Your task to perform on an android device: turn off location history Image 0: 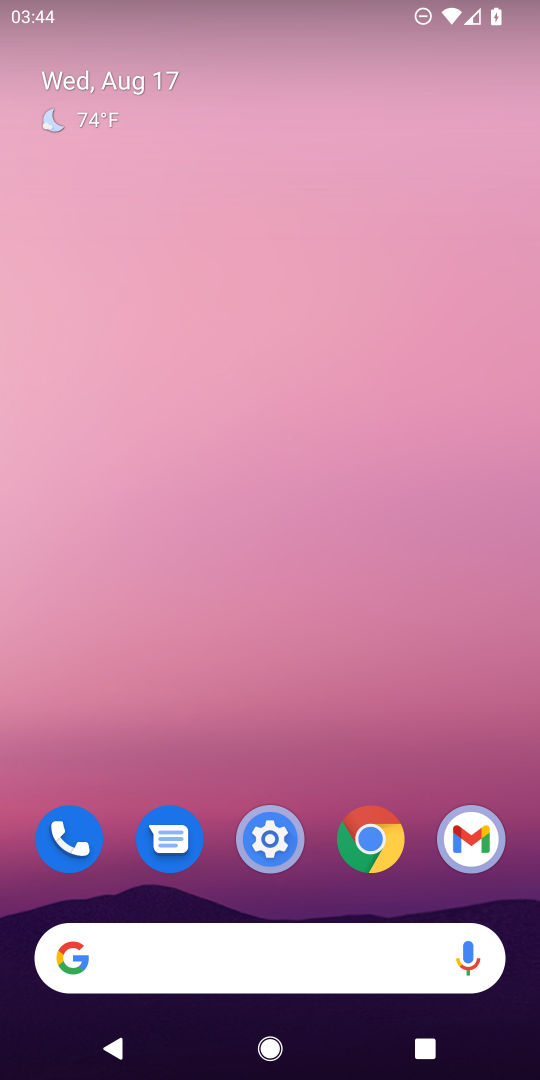
Step 0: drag from (320, 890) to (229, 44)
Your task to perform on an android device: turn off location history Image 1: 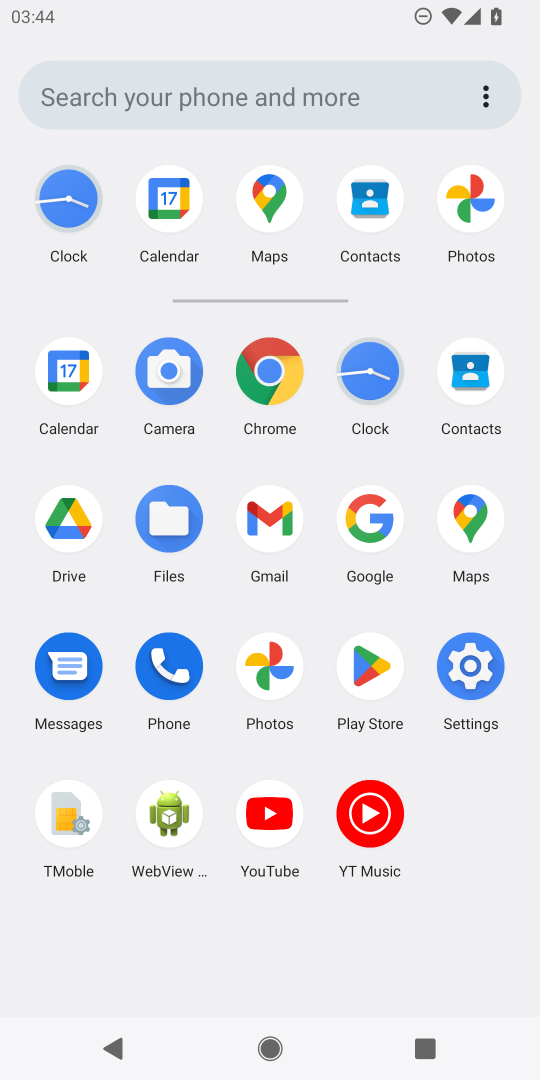
Step 1: click (460, 673)
Your task to perform on an android device: turn off location history Image 2: 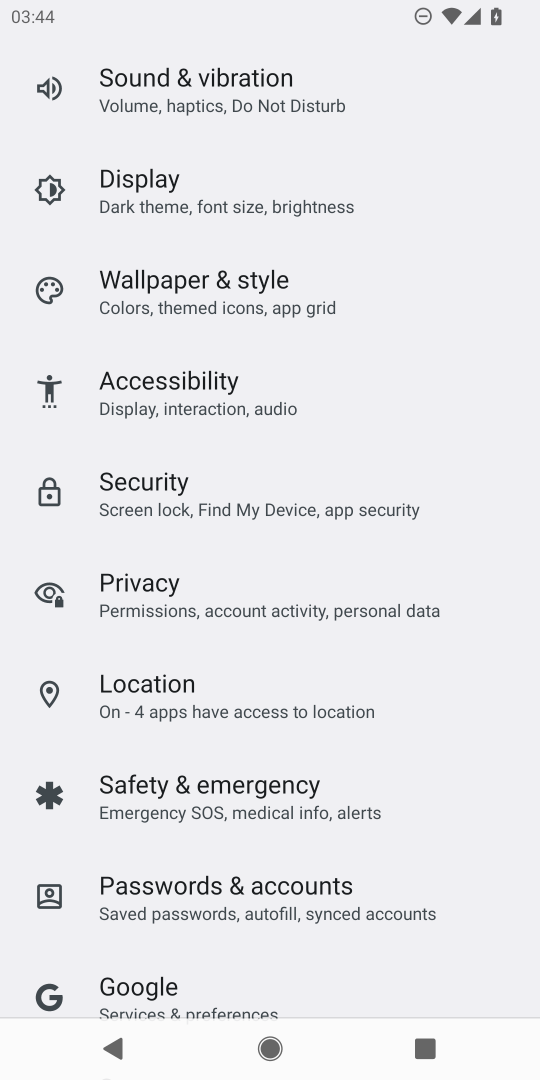
Step 2: click (117, 678)
Your task to perform on an android device: turn off location history Image 3: 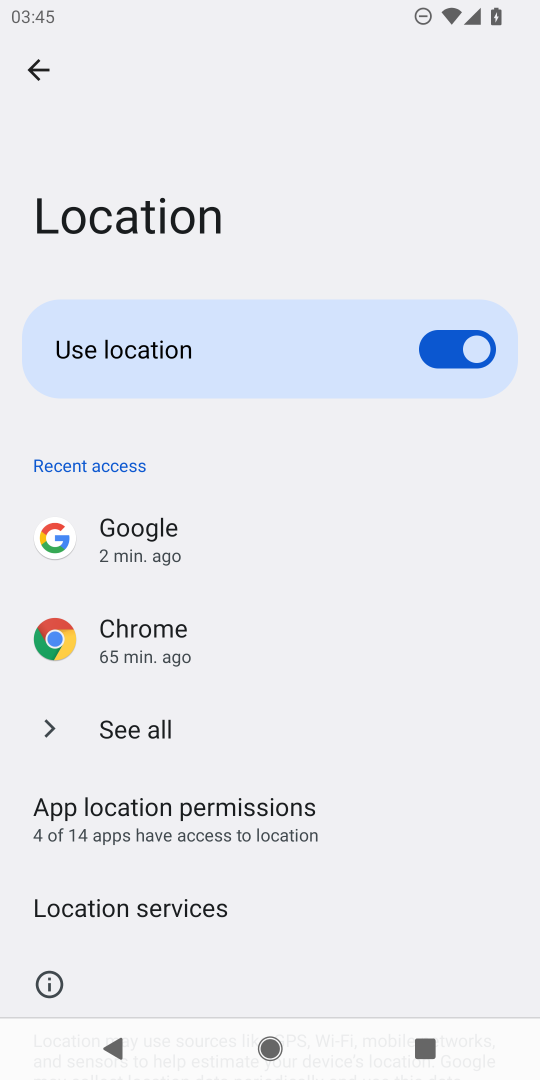
Step 3: click (121, 910)
Your task to perform on an android device: turn off location history Image 4: 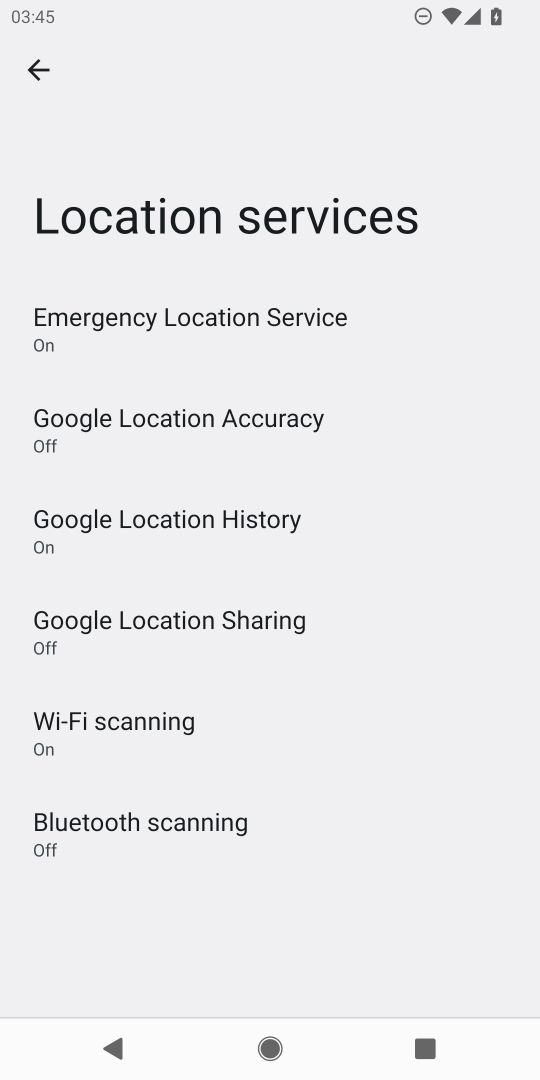
Step 4: click (157, 526)
Your task to perform on an android device: turn off location history Image 5: 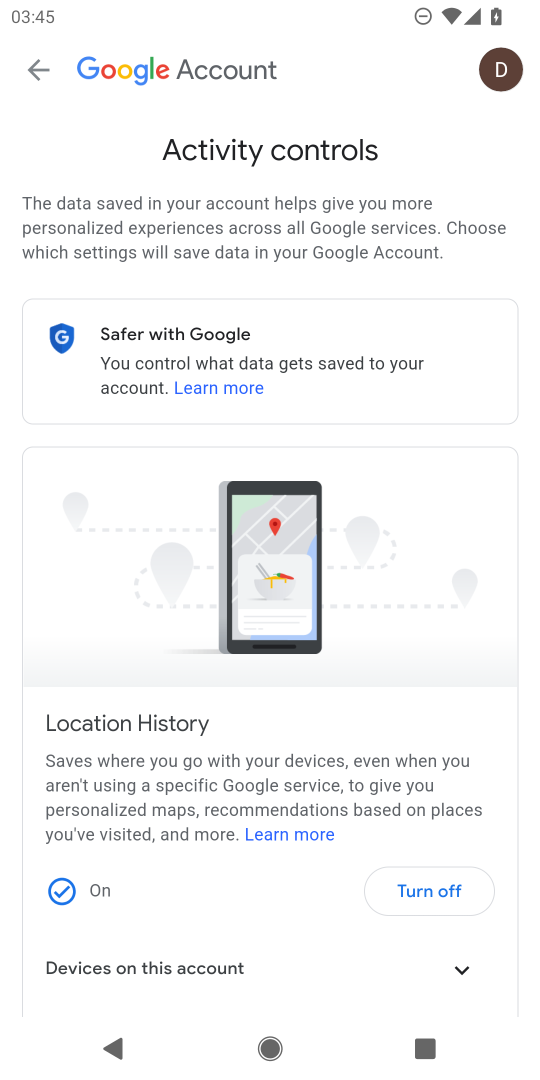
Step 5: click (413, 883)
Your task to perform on an android device: turn off location history Image 6: 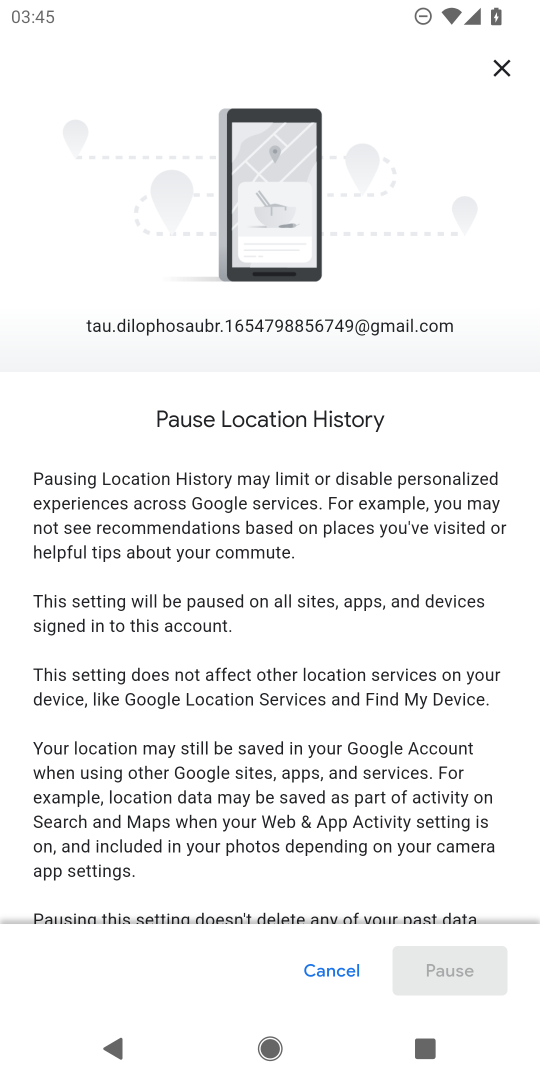
Step 6: drag from (240, 839) to (236, 265)
Your task to perform on an android device: turn off location history Image 7: 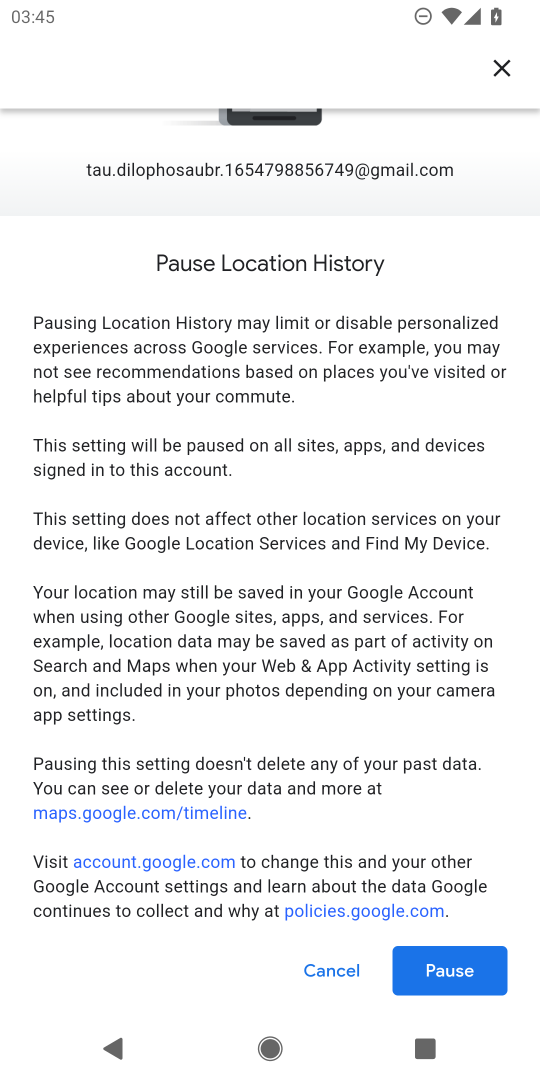
Step 7: click (432, 964)
Your task to perform on an android device: turn off location history Image 8: 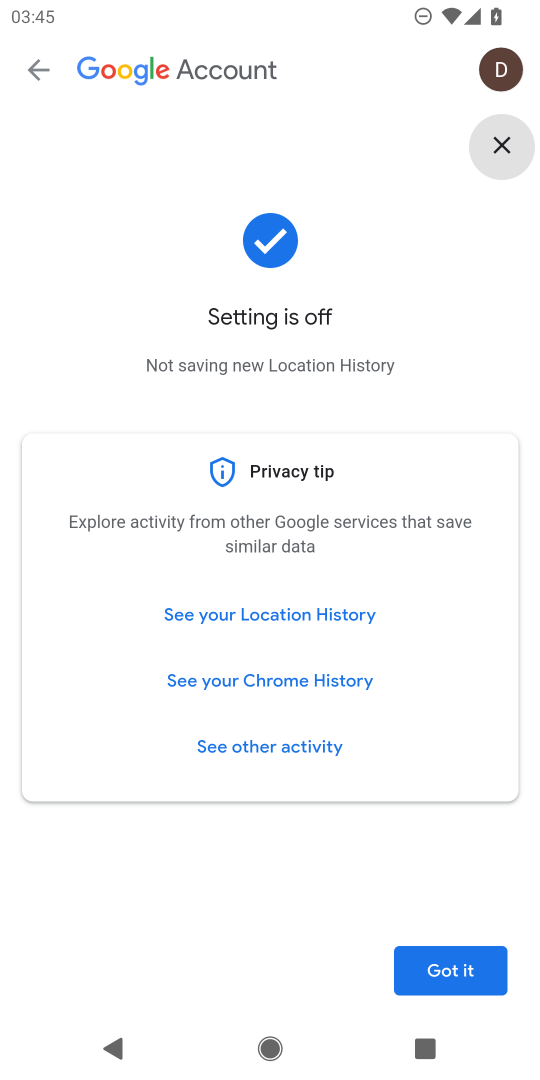
Step 8: click (426, 975)
Your task to perform on an android device: turn off location history Image 9: 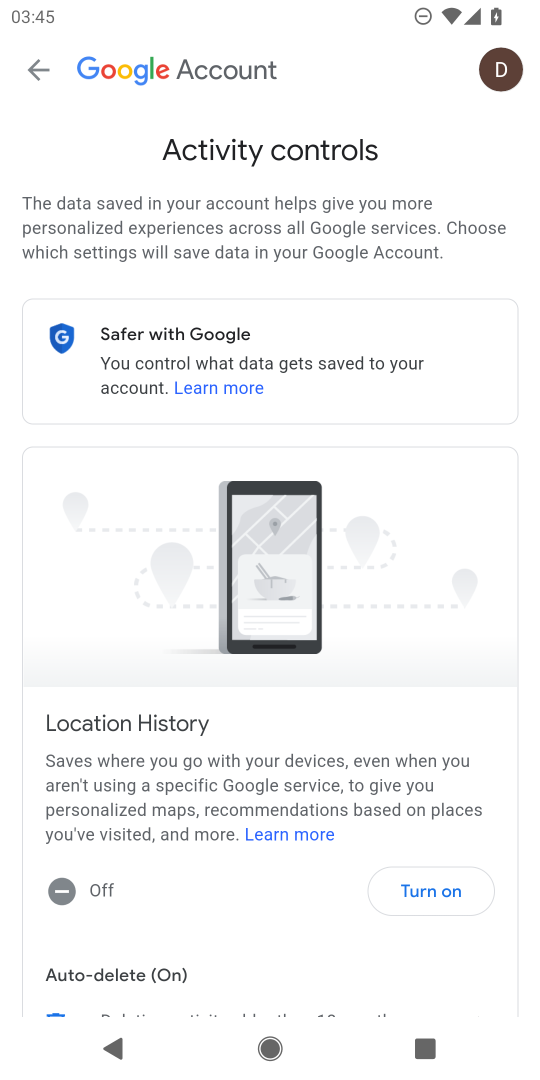
Step 9: task complete